Your task to perform on an android device: Search for Italian restaurants on Maps Image 0: 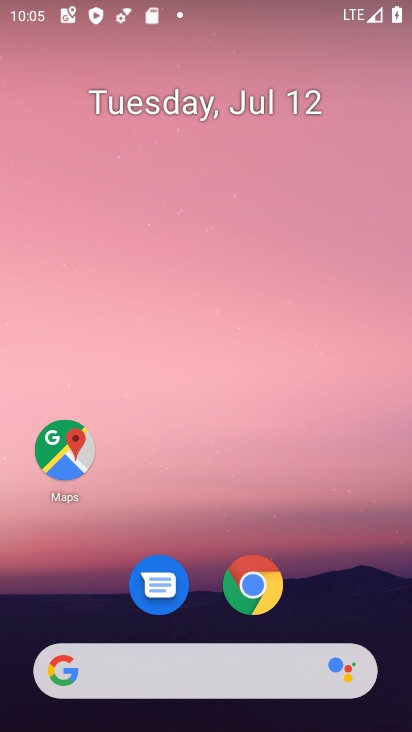
Step 0: press home button
Your task to perform on an android device: Search for Italian restaurants on Maps Image 1: 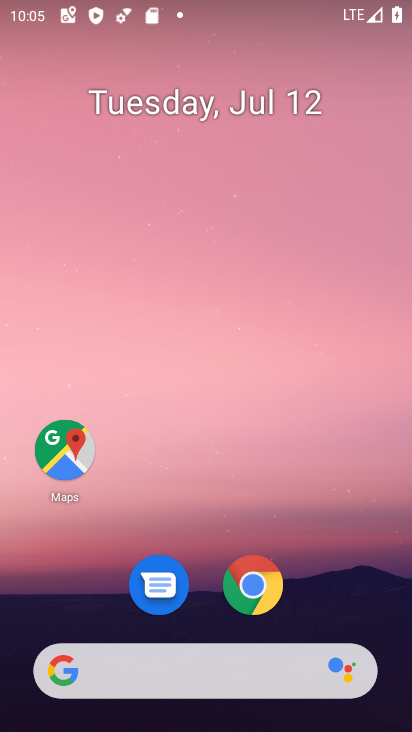
Step 1: click (53, 457)
Your task to perform on an android device: Search for Italian restaurants on Maps Image 2: 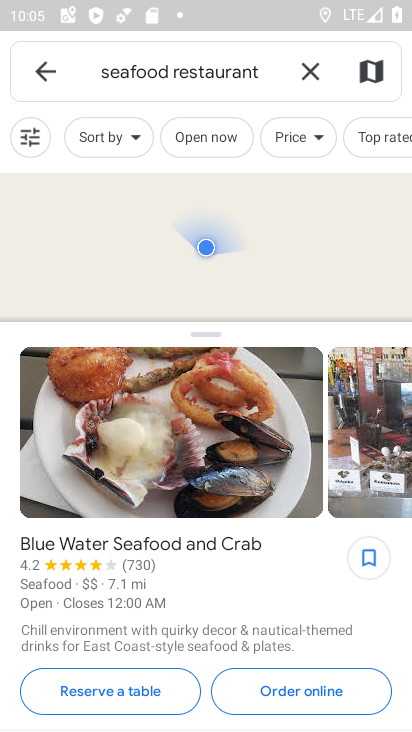
Step 2: click (309, 67)
Your task to perform on an android device: Search for Italian restaurants on Maps Image 3: 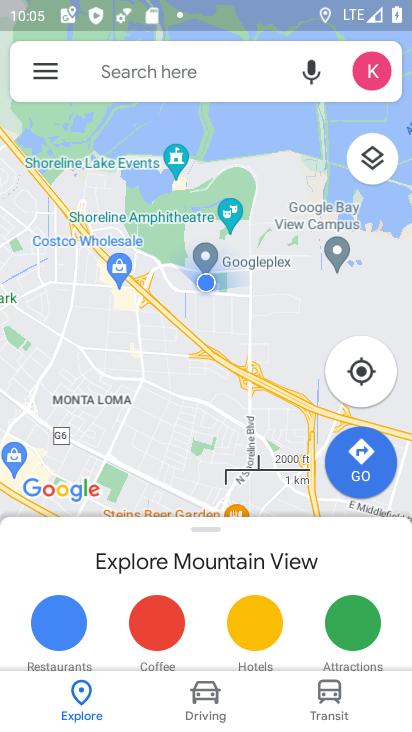
Step 3: click (202, 81)
Your task to perform on an android device: Search for Italian restaurants on Maps Image 4: 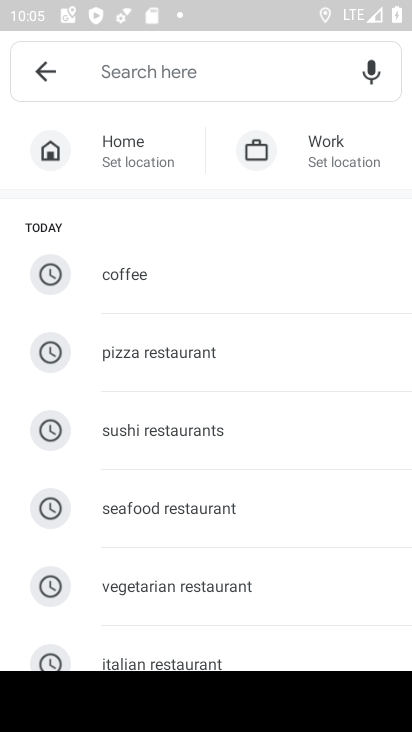
Step 4: drag from (214, 617) to (333, 277)
Your task to perform on an android device: Search for Italian restaurants on Maps Image 5: 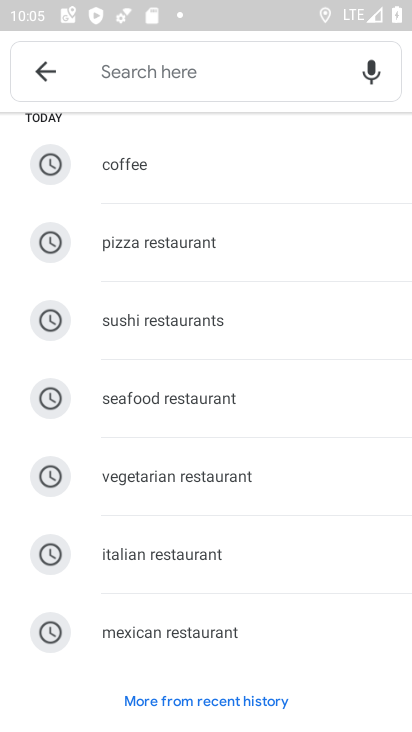
Step 5: click (199, 551)
Your task to perform on an android device: Search for Italian restaurants on Maps Image 6: 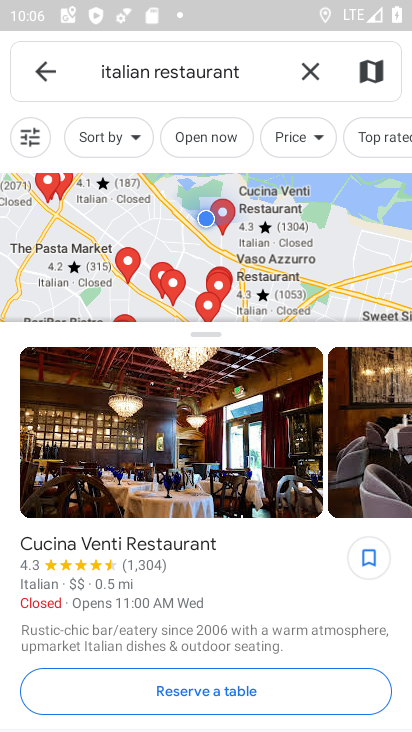
Step 6: task complete